Your task to perform on an android device: Go to notification settings Image 0: 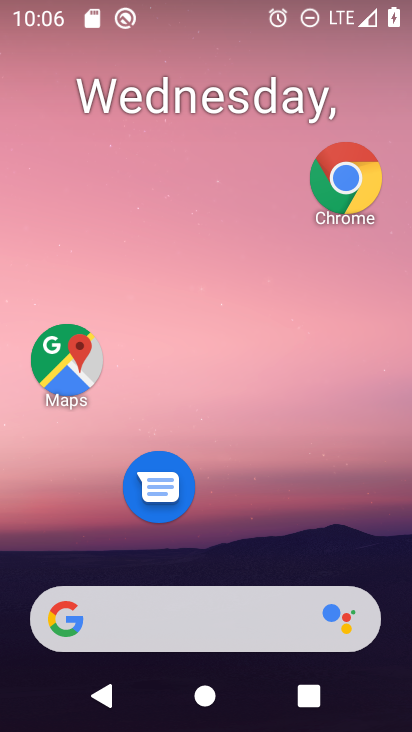
Step 0: drag from (235, 613) to (243, 120)
Your task to perform on an android device: Go to notification settings Image 1: 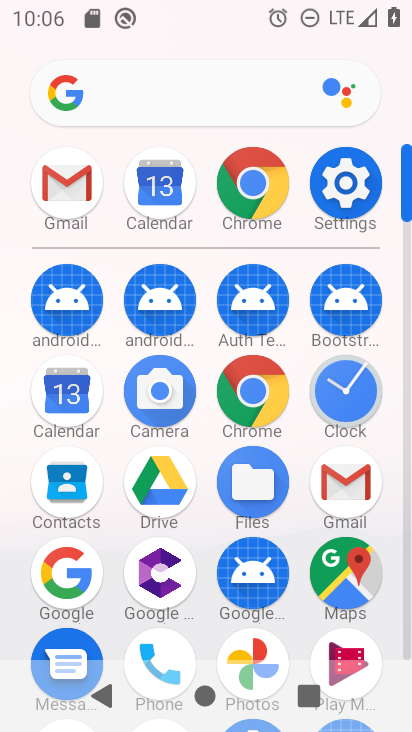
Step 1: click (337, 201)
Your task to perform on an android device: Go to notification settings Image 2: 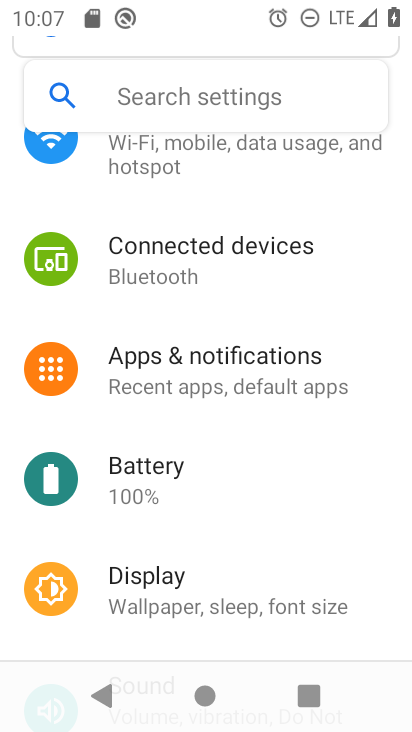
Step 2: click (263, 374)
Your task to perform on an android device: Go to notification settings Image 3: 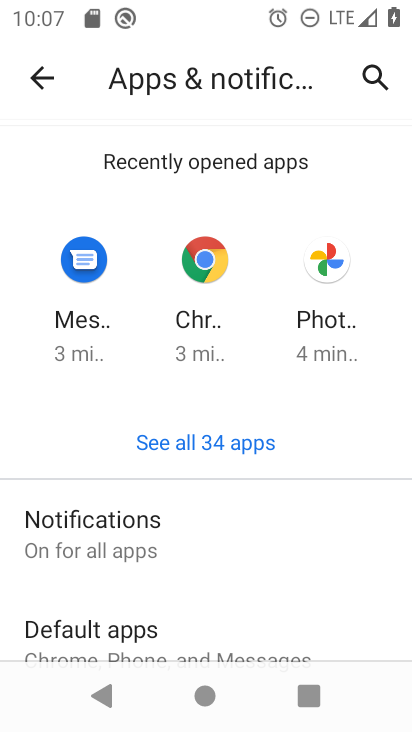
Step 3: drag from (227, 551) to (224, 392)
Your task to perform on an android device: Go to notification settings Image 4: 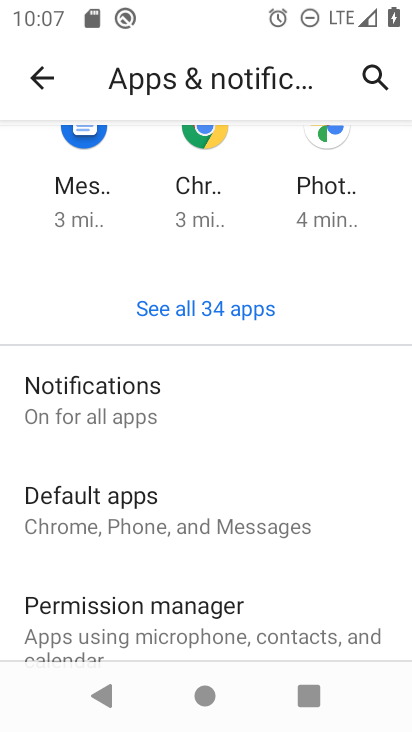
Step 4: click (158, 398)
Your task to perform on an android device: Go to notification settings Image 5: 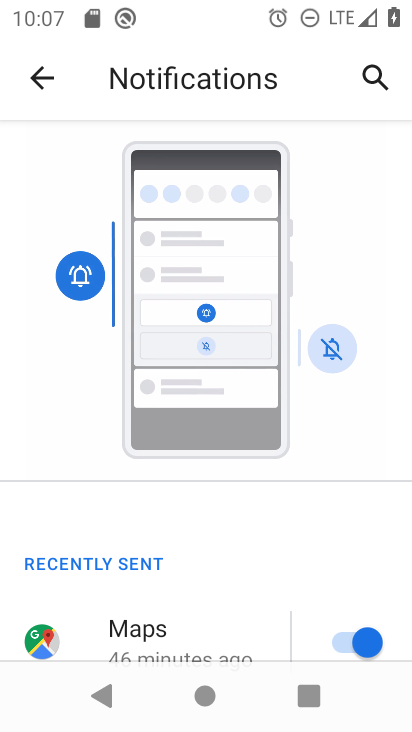
Step 5: task complete